Your task to perform on an android device: Go to wifi settings Image 0: 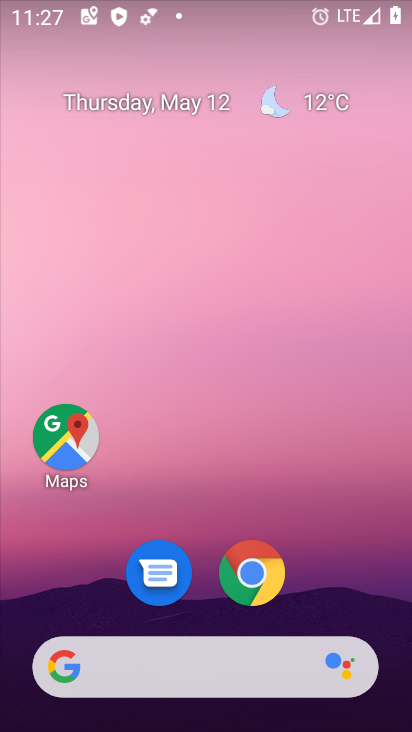
Step 0: drag from (152, 716) to (283, 29)
Your task to perform on an android device: Go to wifi settings Image 1: 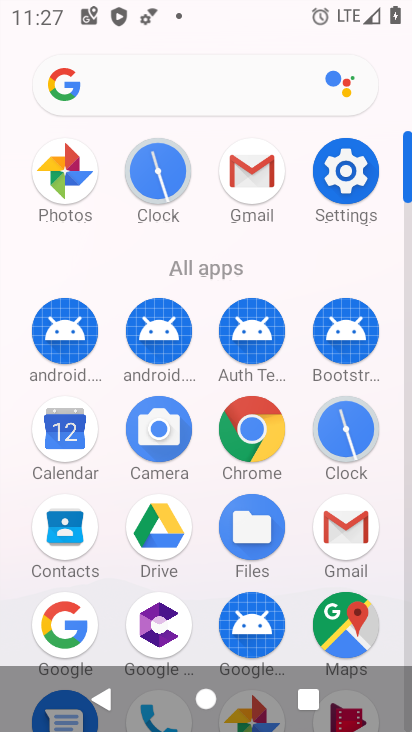
Step 1: click (338, 169)
Your task to perform on an android device: Go to wifi settings Image 2: 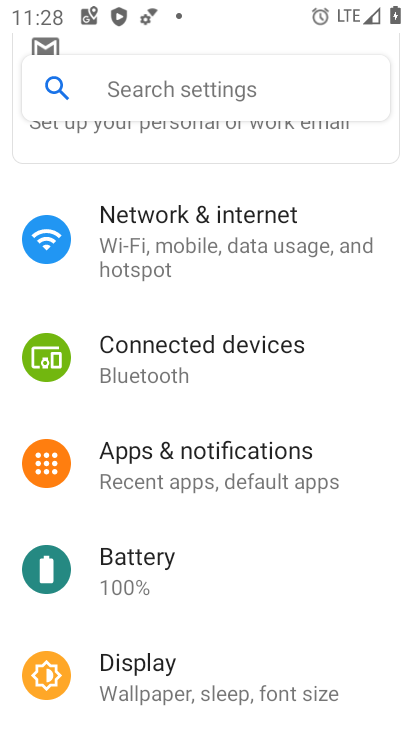
Step 2: click (235, 244)
Your task to perform on an android device: Go to wifi settings Image 3: 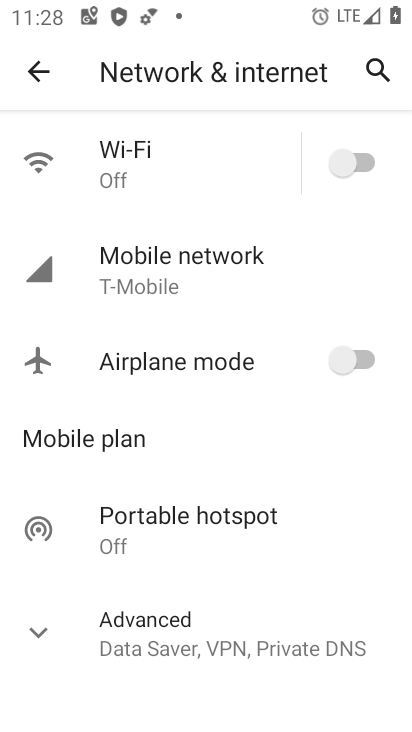
Step 3: click (263, 164)
Your task to perform on an android device: Go to wifi settings Image 4: 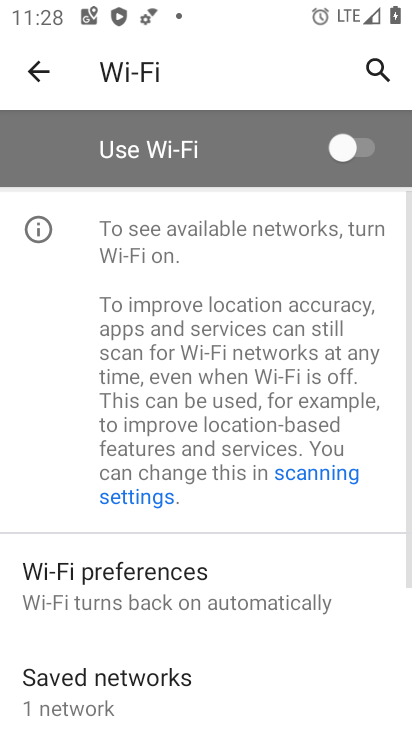
Step 4: task complete